Your task to perform on an android device: turn on notifications settings in the gmail app Image 0: 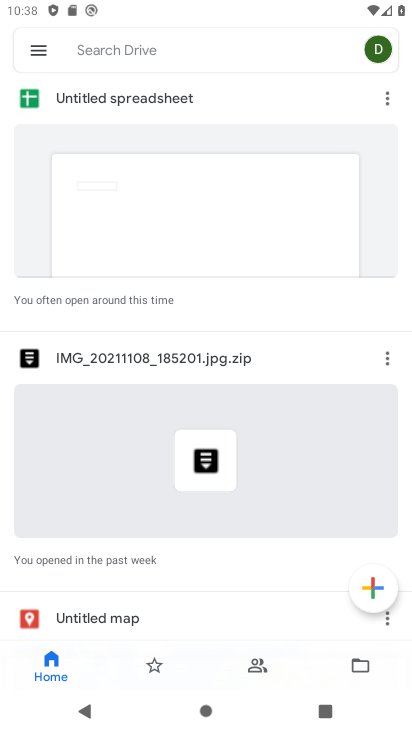
Step 0: press home button
Your task to perform on an android device: turn on notifications settings in the gmail app Image 1: 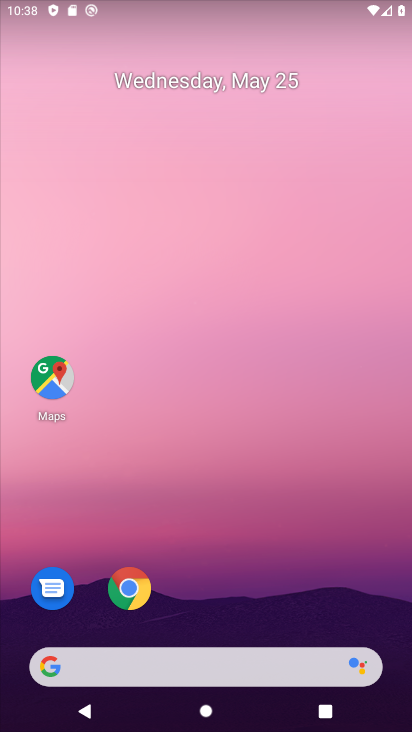
Step 1: drag from (178, 630) to (253, 179)
Your task to perform on an android device: turn on notifications settings in the gmail app Image 2: 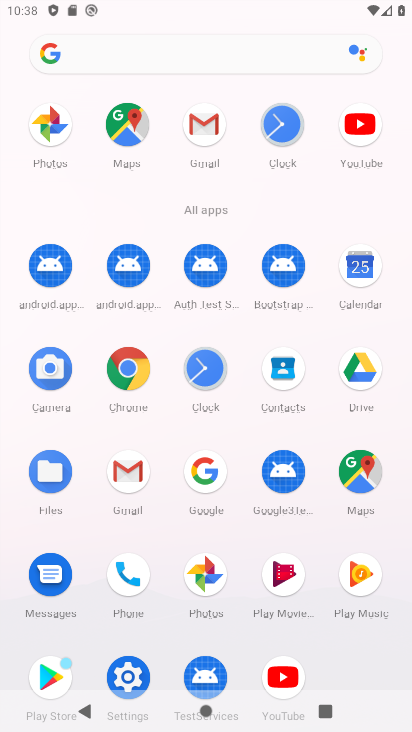
Step 2: click (202, 135)
Your task to perform on an android device: turn on notifications settings in the gmail app Image 3: 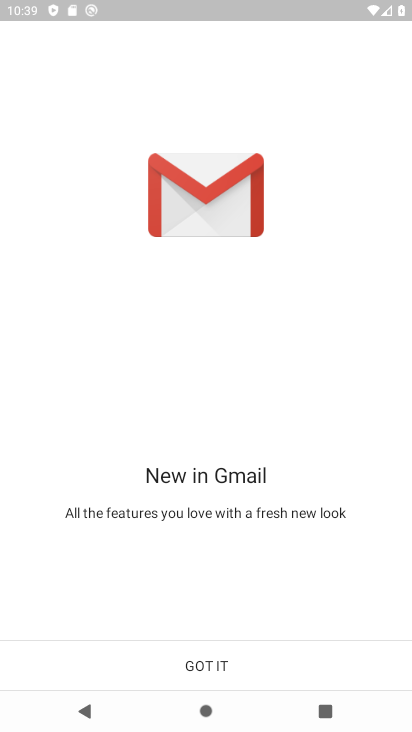
Step 3: click (254, 673)
Your task to perform on an android device: turn on notifications settings in the gmail app Image 4: 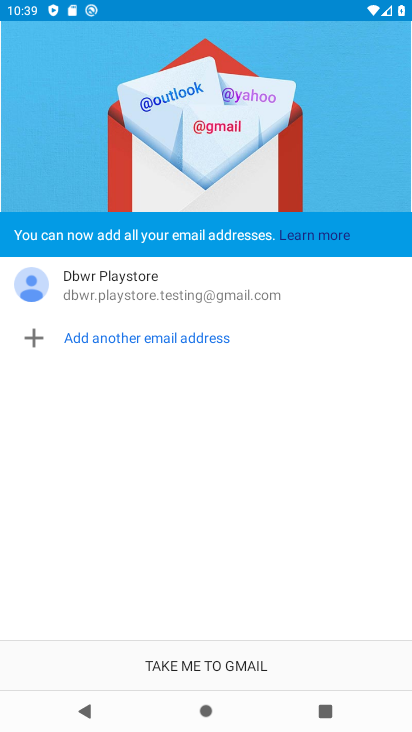
Step 4: click (254, 673)
Your task to perform on an android device: turn on notifications settings in the gmail app Image 5: 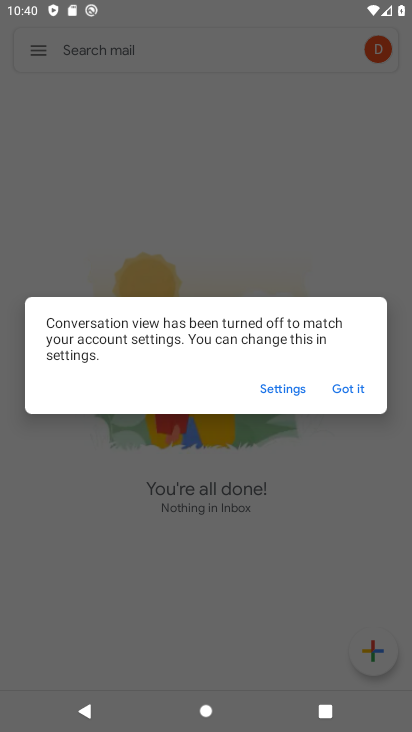
Step 5: click (352, 399)
Your task to perform on an android device: turn on notifications settings in the gmail app Image 6: 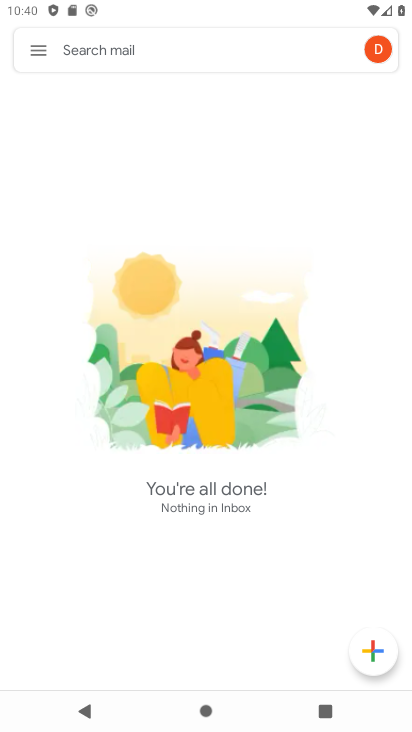
Step 6: click (33, 55)
Your task to perform on an android device: turn on notifications settings in the gmail app Image 7: 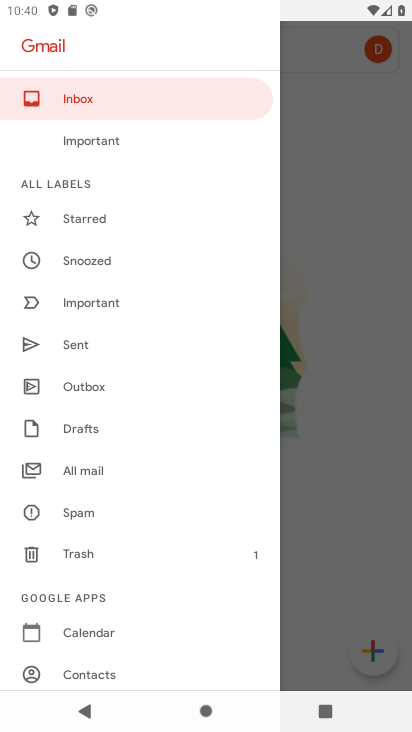
Step 7: drag from (107, 690) to (156, 235)
Your task to perform on an android device: turn on notifications settings in the gmail app Image 8: 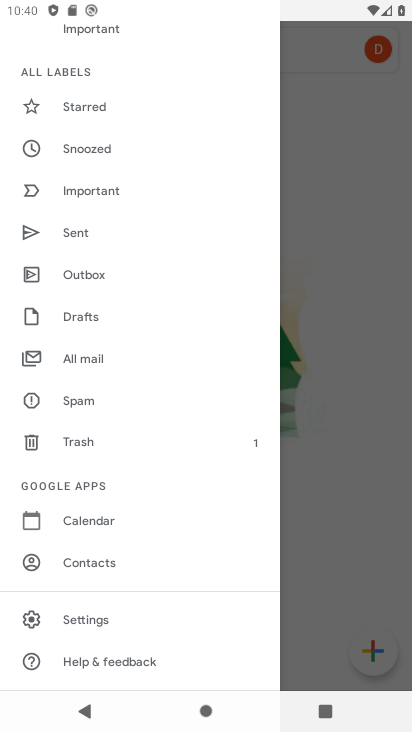
Step 8: click (110, 621)
Your task to perform on an android device: turn on notifications settings in the gmail app Image 9: 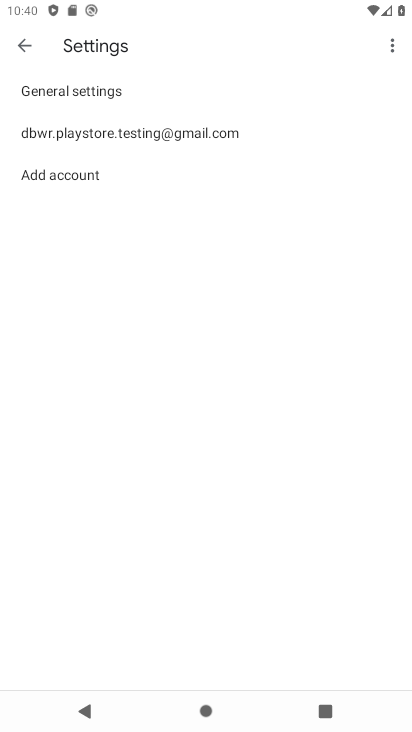
Step 9: click (66, 125)
Your task to perform on an android device: turn on notifications settings in the gmail app Image 10: 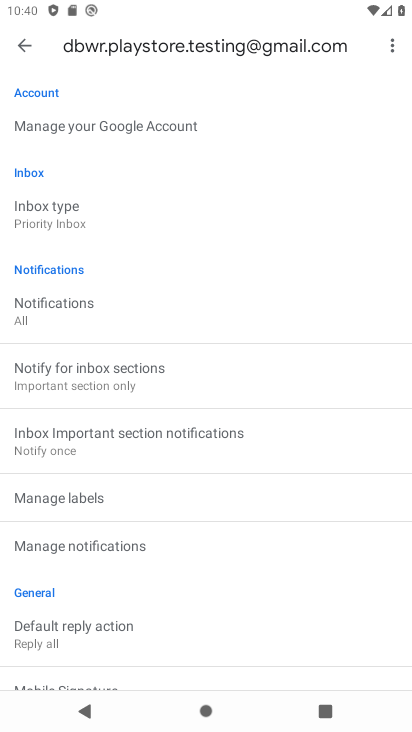
Step 10: click (83, 313)
Your task to perform on an android device: turn on notifications settings in the gmail app Image 11: 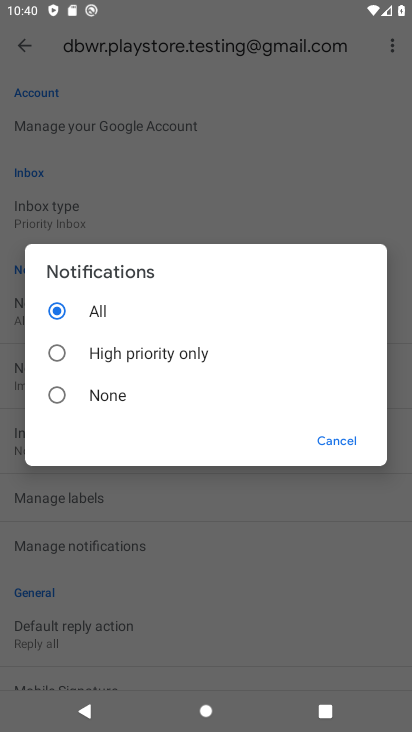
Step 11: click (83, 313)
Your task to perform on an android device: turn on notifications settings in the gmail app Image 12: 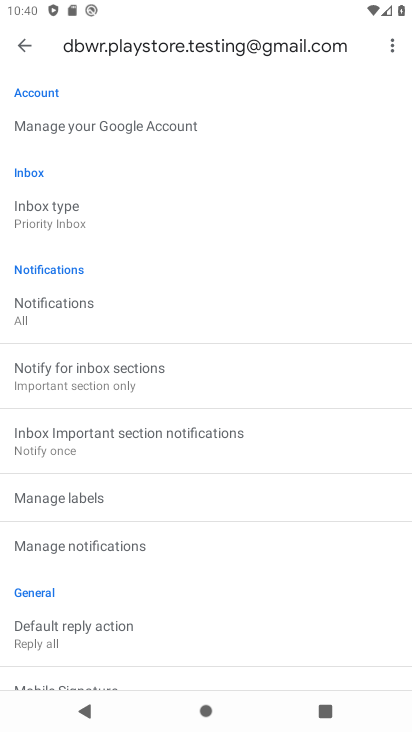
Step 12: task complete